Your task to perform on an android device: find snoozed emails in the gmail app Image 0: 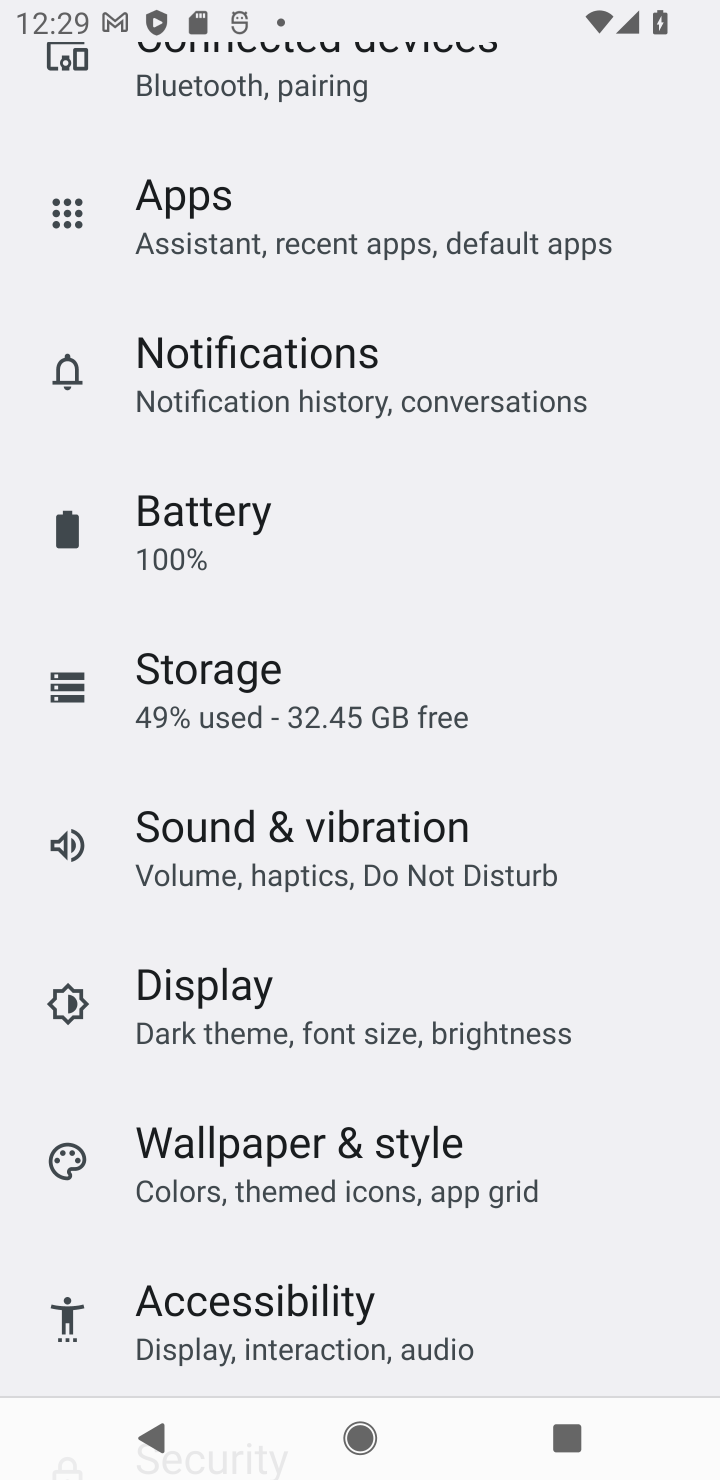
Step 0: press home button
Your task to perform on an android device: find snoozed emails in the gmail app Image 1: 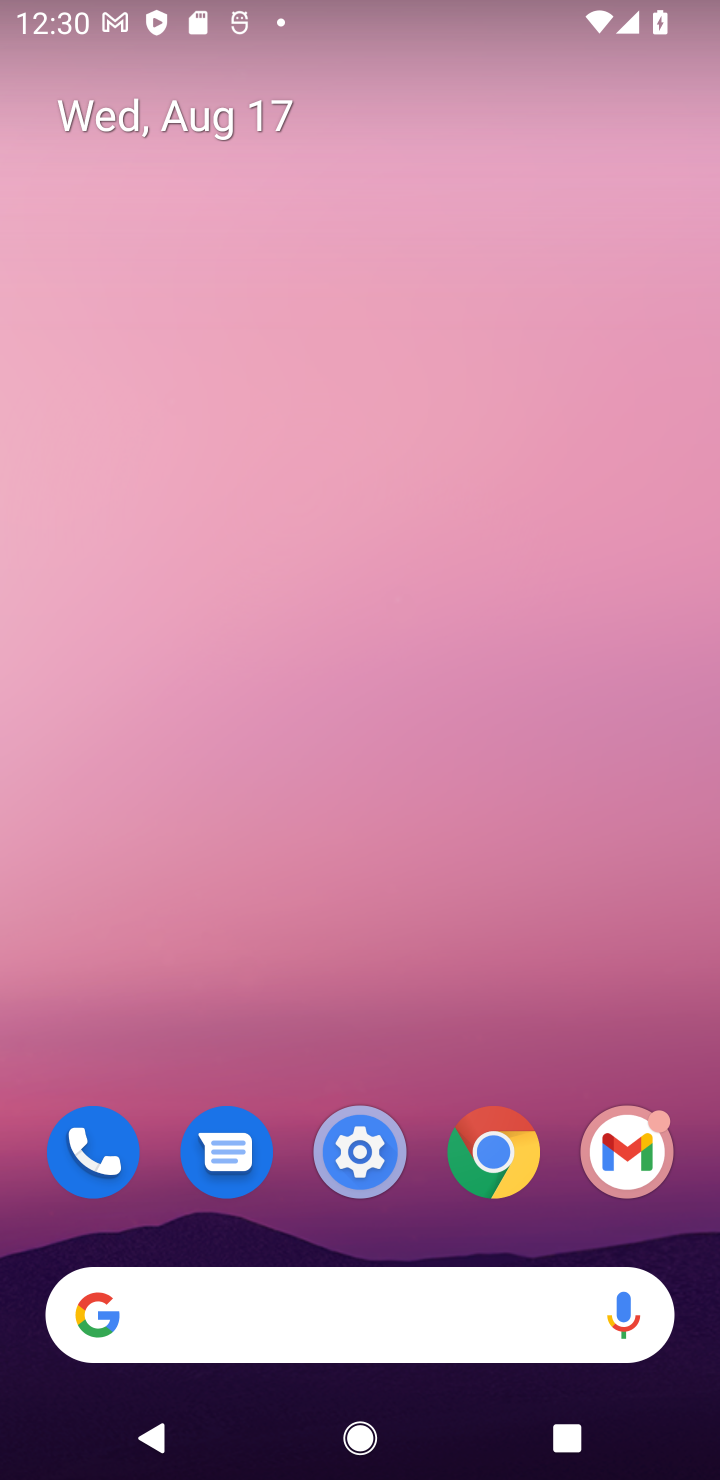
Step 1: drag from (695, 1208) to (411, 24)
Your task to perform on an android device: find snoozed emails in the gmail app Image 2: 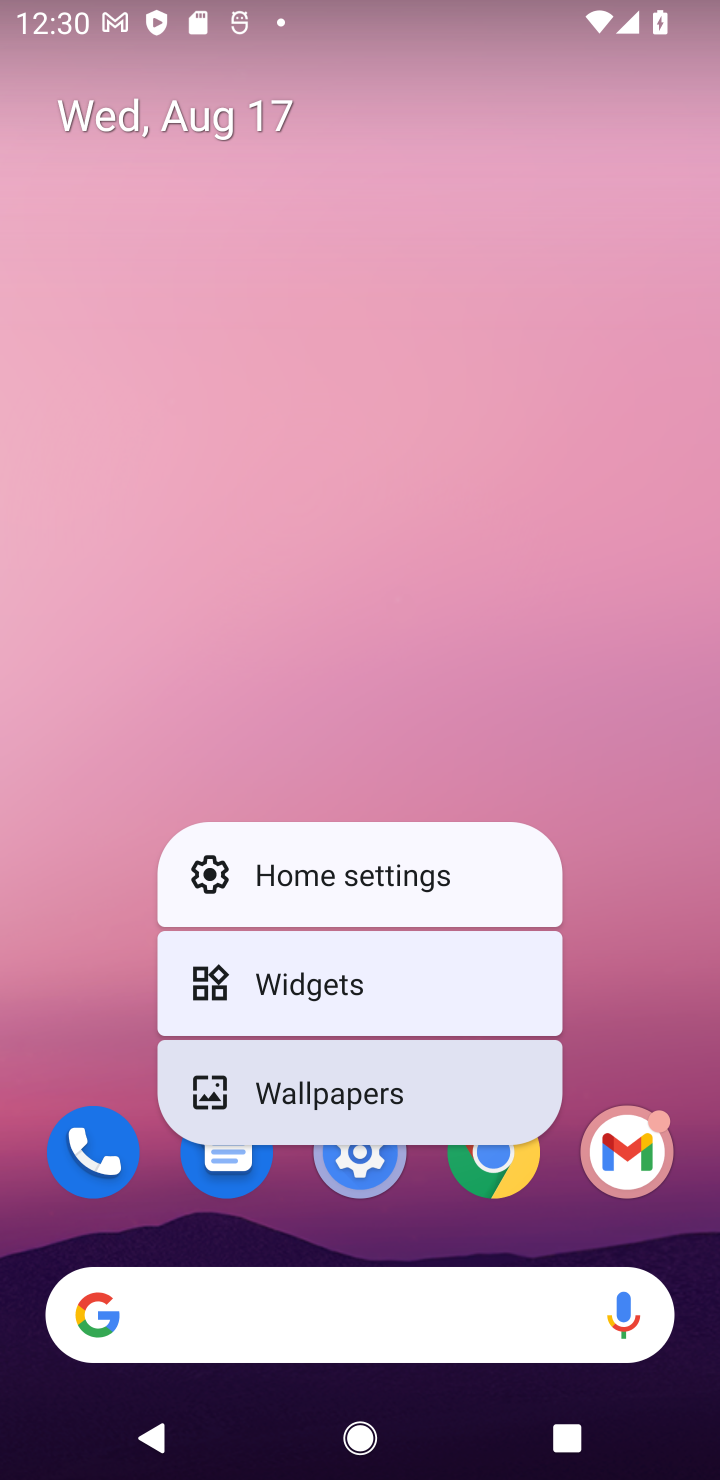
Step 2: click (603, 958)
Your task to perform on an android device: find snoozed emails in the gmail app Image 3: 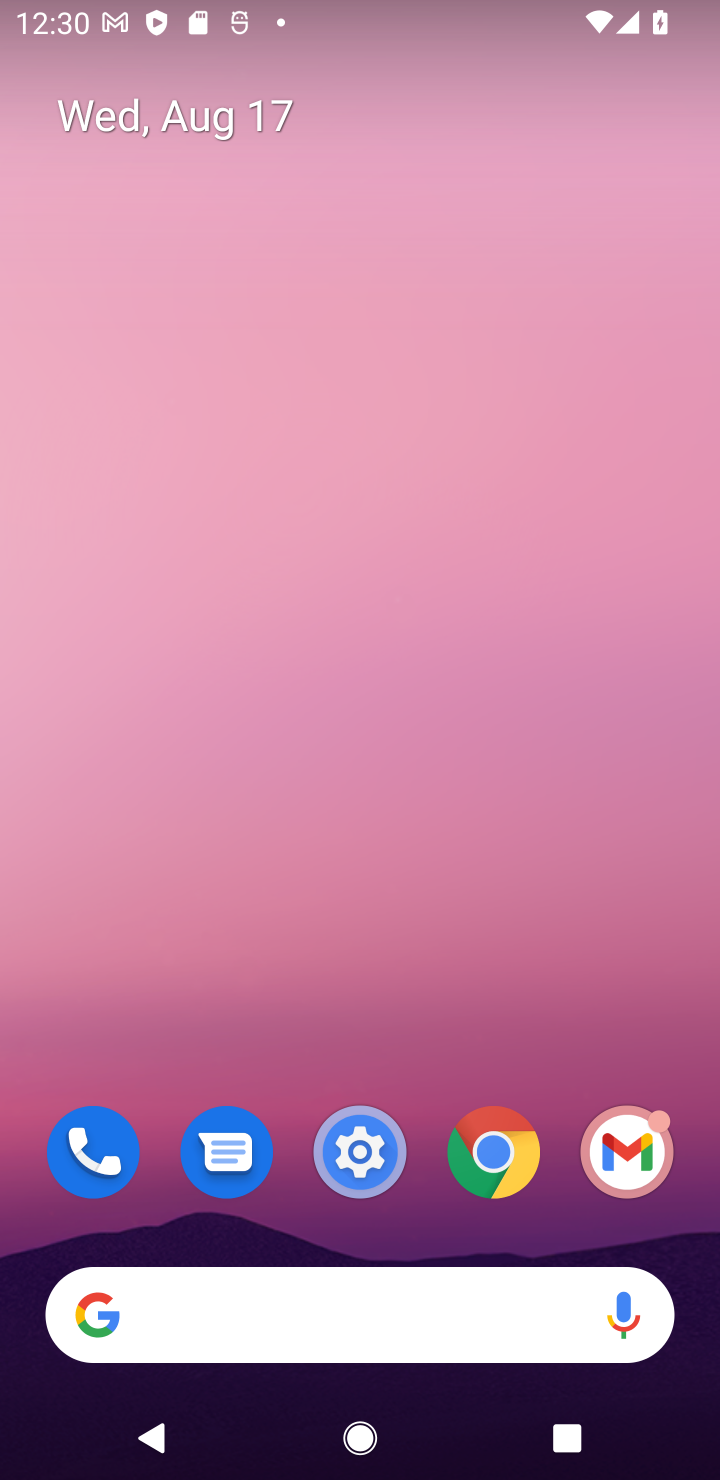
Step 3: drag from (670, 1210) to (420, 24)
Your task to perform on an android device: find snoozed emails in the gmail app Image 4: 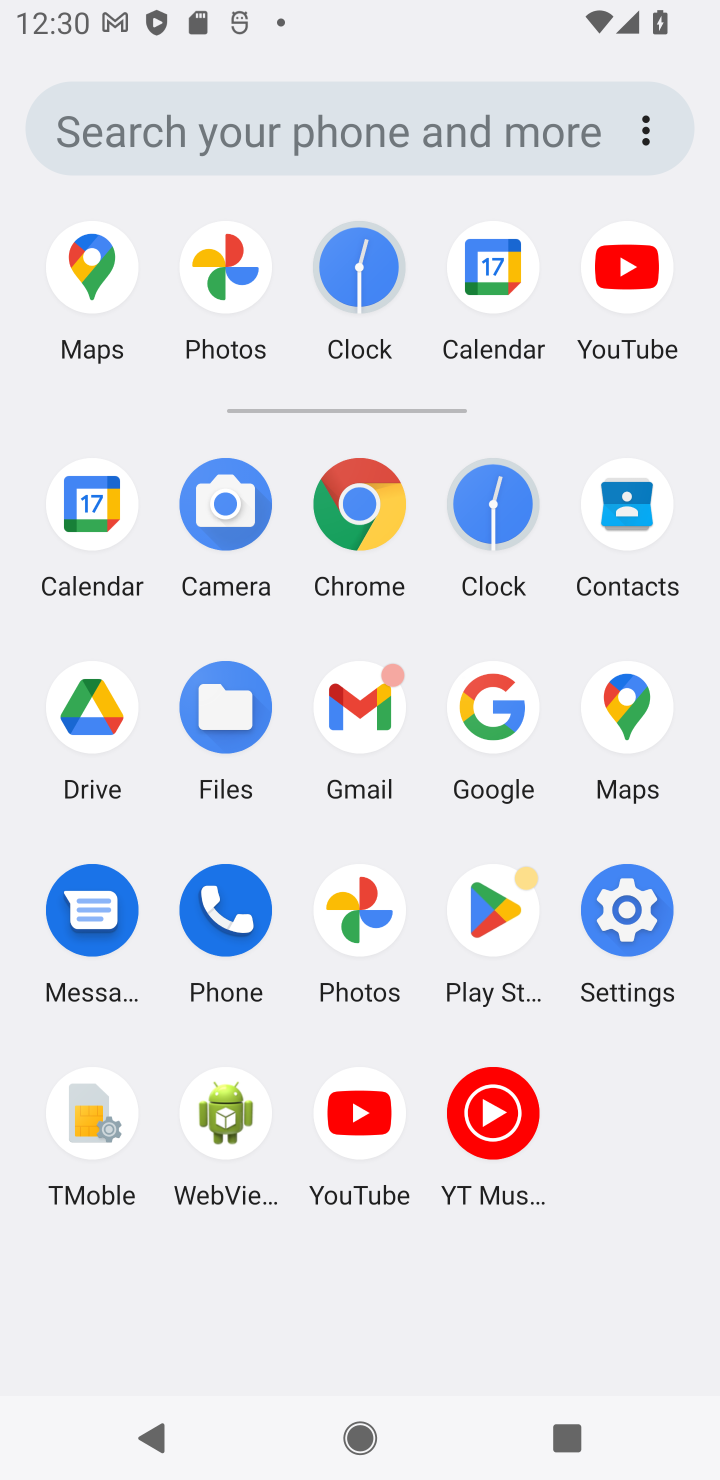
Step 4: click (372, 750)
Your task to perform on an android device: find snoozed emails in the gmail app Image 5: 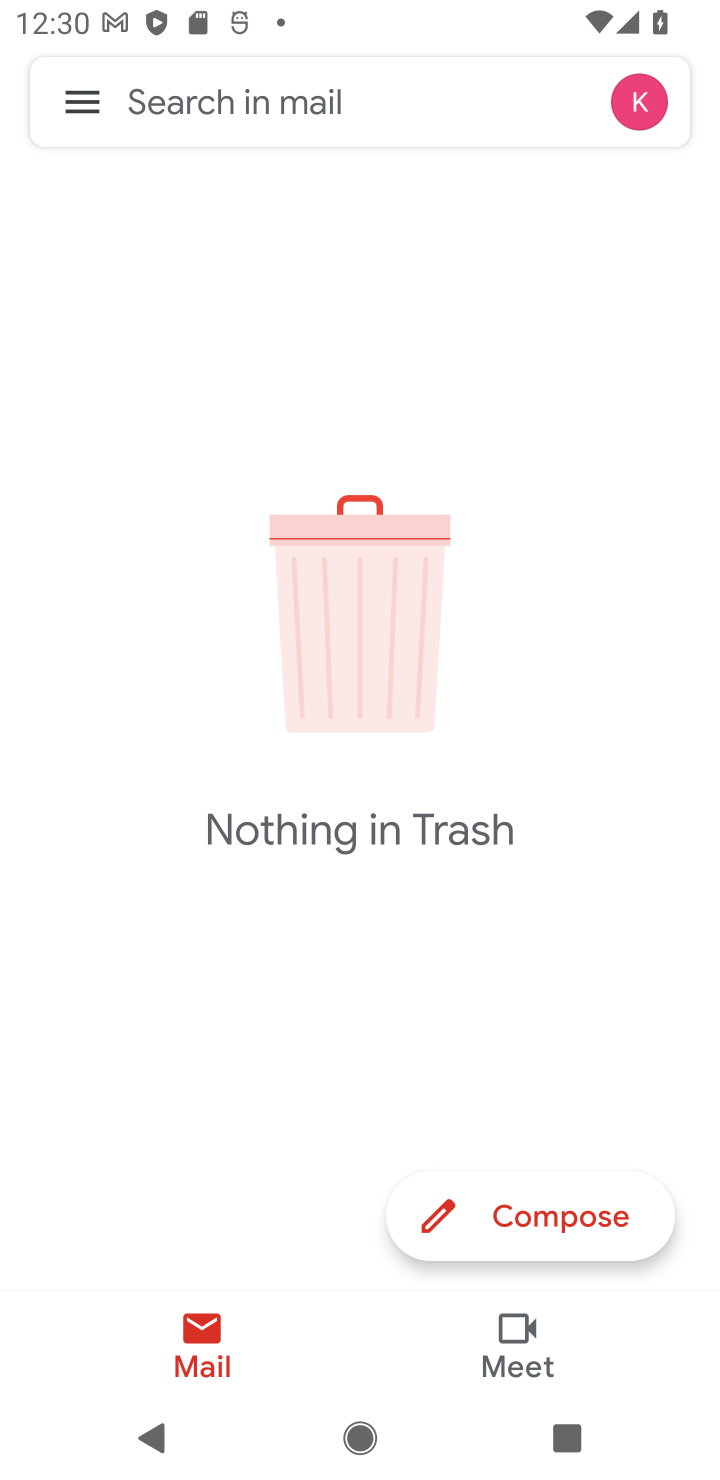
Step 5: click (70, 119)
Your task to perform on an android device: find snoozed emails in the gmail app Image 6: 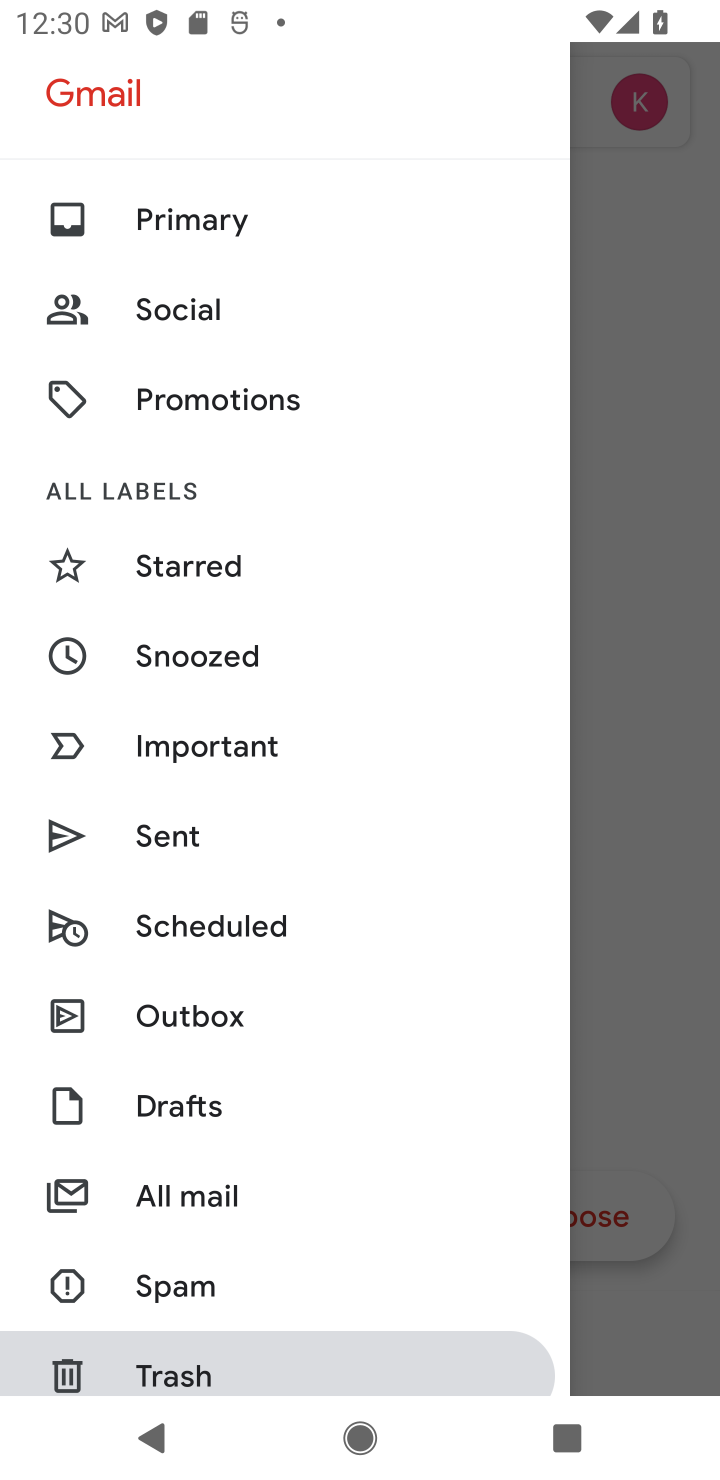
Step 6: click (249, 650)
Your task to perform on an android device: find snoozed emails in the gmail app Image 7: 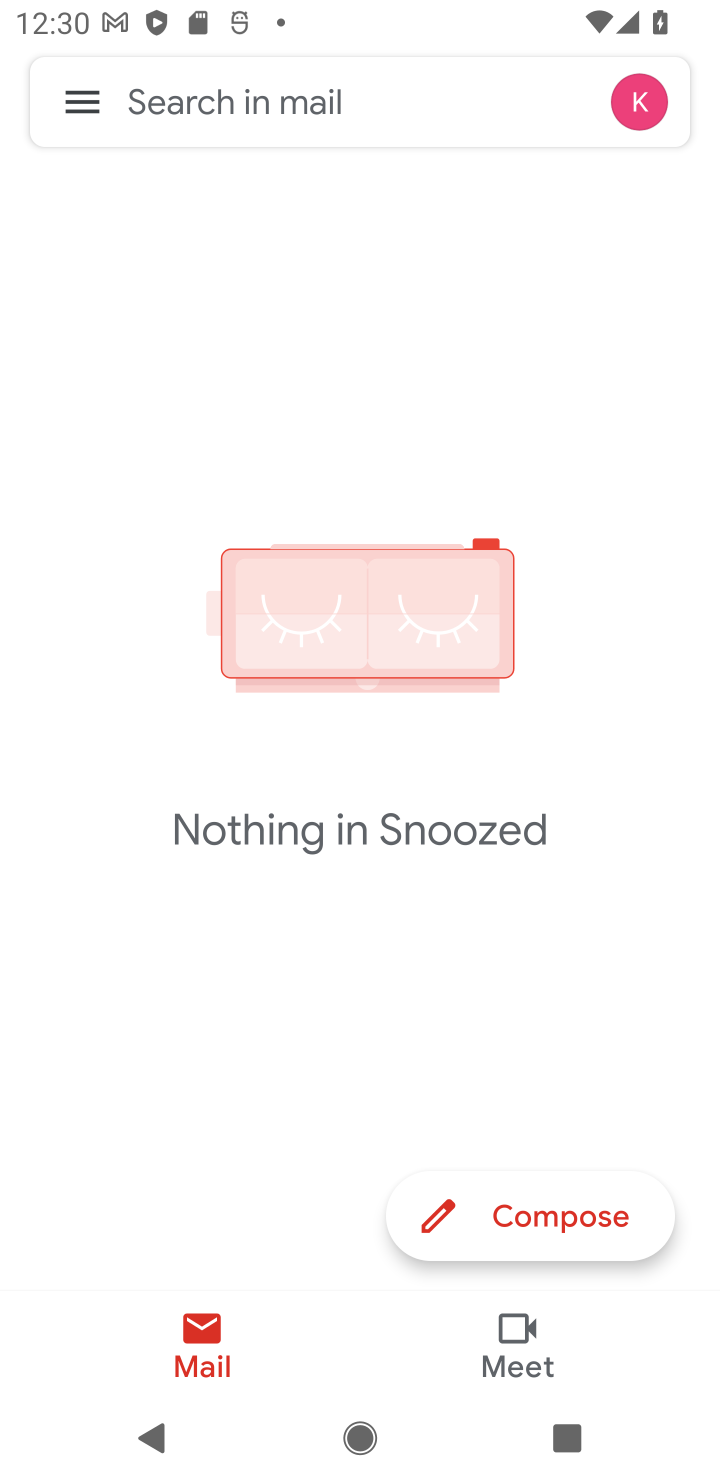
Step 7: task complete